Your task to perform on an android device: star an email in the gmail app Image 0: 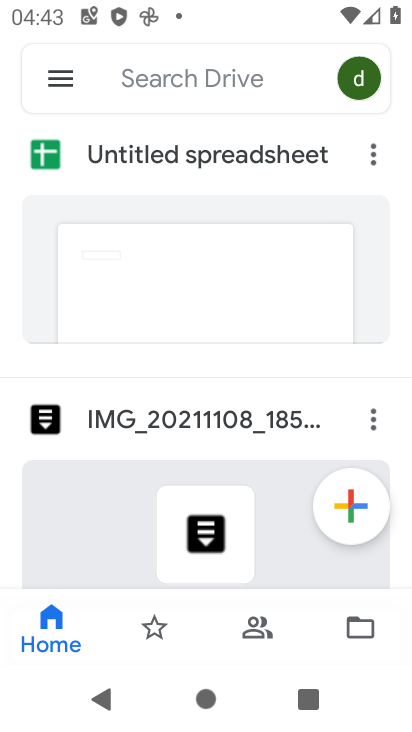
Step 0: press home button
Your task to perform on an android device: star an email in the gmail app Image 1: 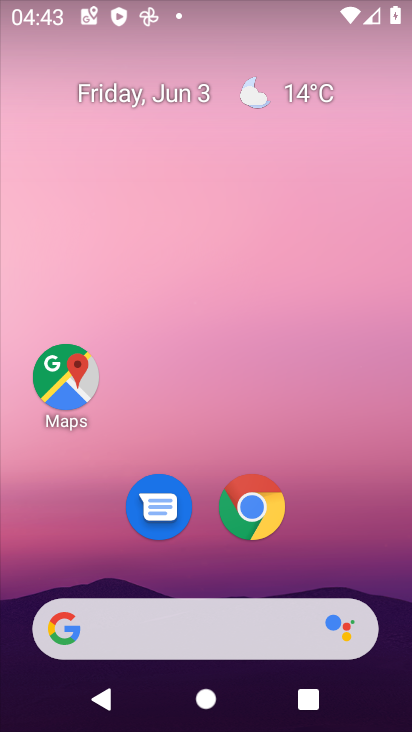
Step 1: drag from (337, 545) to (295, 1)
Your task to perform on an android device: star an email in the gmail app Image 2: 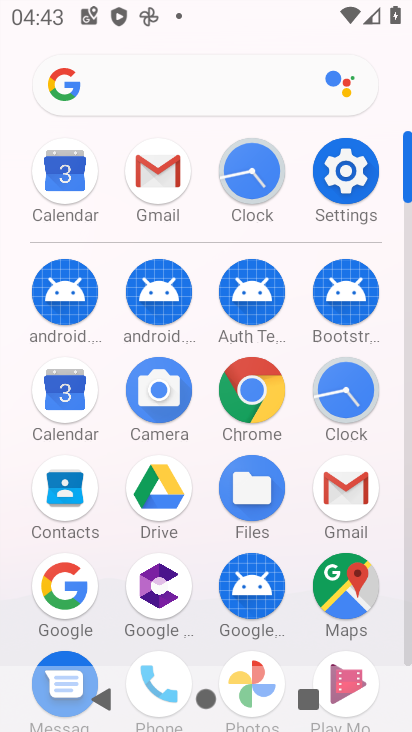
Step 2: click (174, 190)
Your task to perform on an android device: star an email in the gmail app Image 3: 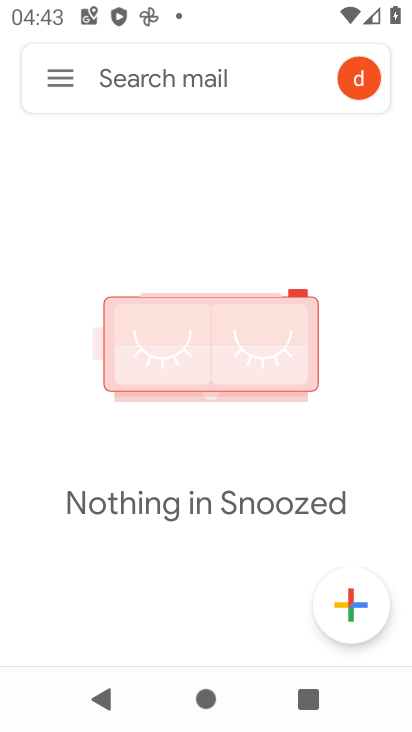
Step 3: click (50, 73)
Your task to perform on an android device: star an email in the gmail app Image 4: 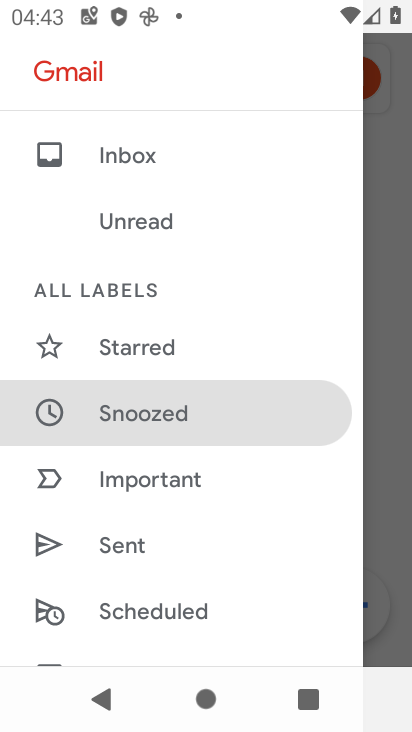
Step 4: click (163, 342)
Your task to perform on an android device: star an email in the gmail app Image 5: 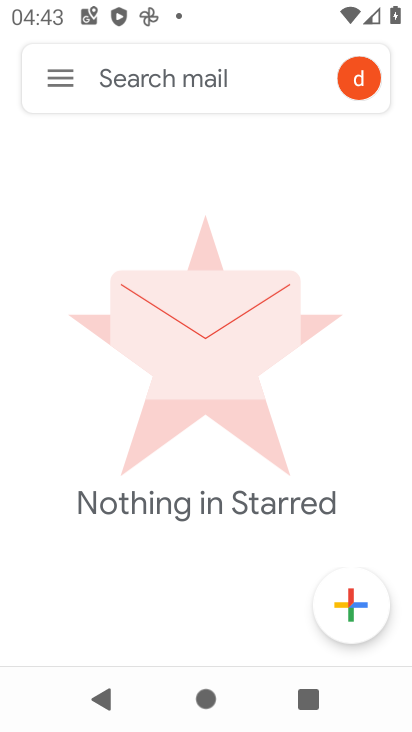
Step 5: click (190, 329)
Your task to perform on an android device: star an email in the gmail app Image 6: 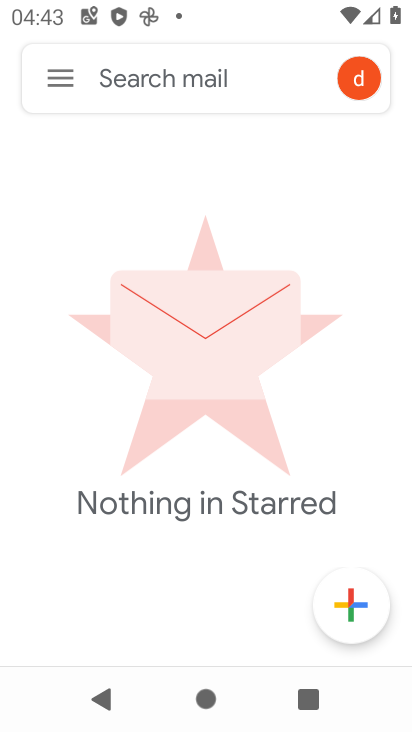
Step 6: task complete